Your task to perform on an android device: Search for sushi restaurants on Maps Image 0: 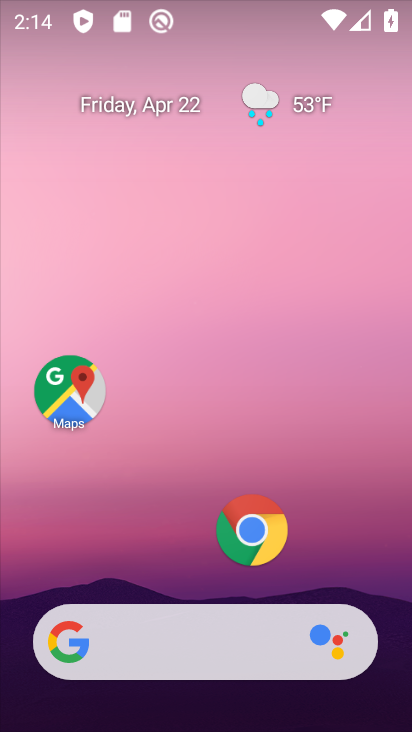
Step 0: click (31, 390)
Your task to perform on an android device: Search for sushi restaurants on Maps Image 1: 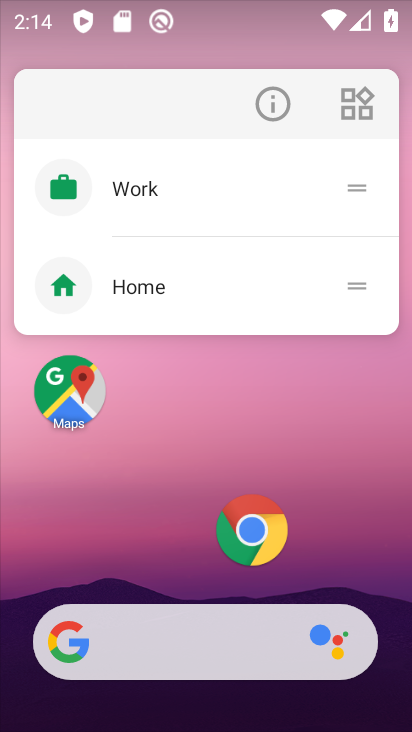
Step 1: click (31, 390)
Your task to perform on an android device: Search for sushi restaurants on Maps Image 2: 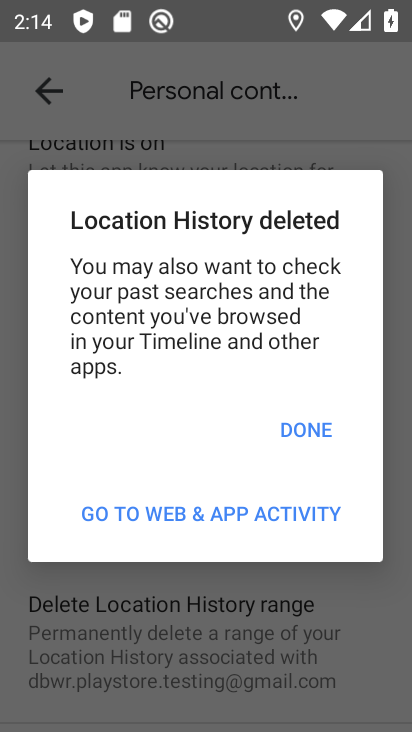
Step 2: click (308, 420)
Your task to perform on an android device: Search for sushi restaurants on Maps Image 3: 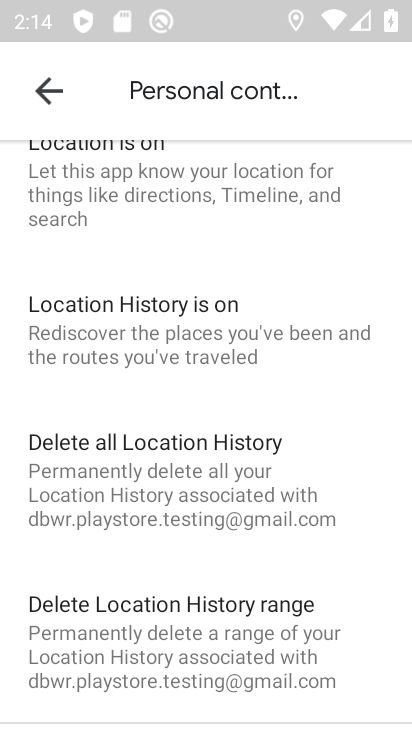
Step 3: press back button
Your task to perform on an android device: Search for sushi restaurants on Maps Image 4: 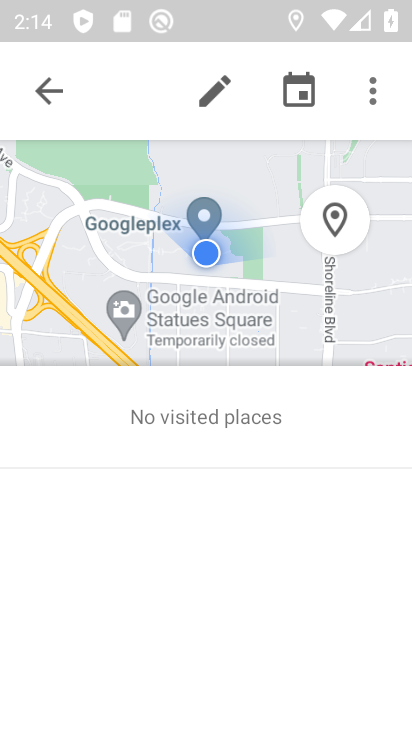
Step 4: click (40, 91)
Your task to perform on an android device: Search for sushi restaurants on Maps Image 5: 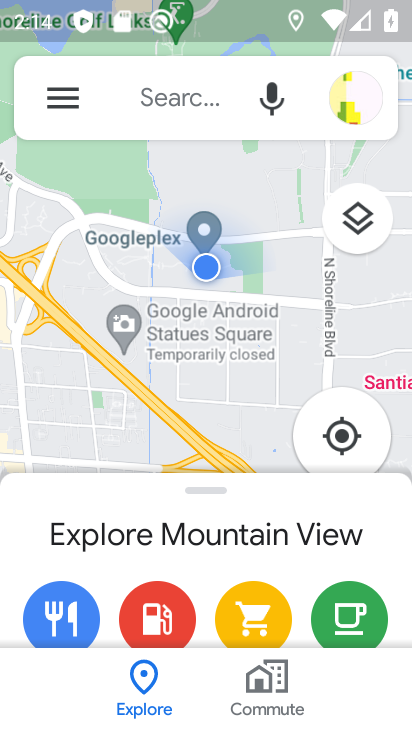
Step 5: click (153, 96)
Your task to perform on an android device: Search for sushi restaurants on Maps Image 6: 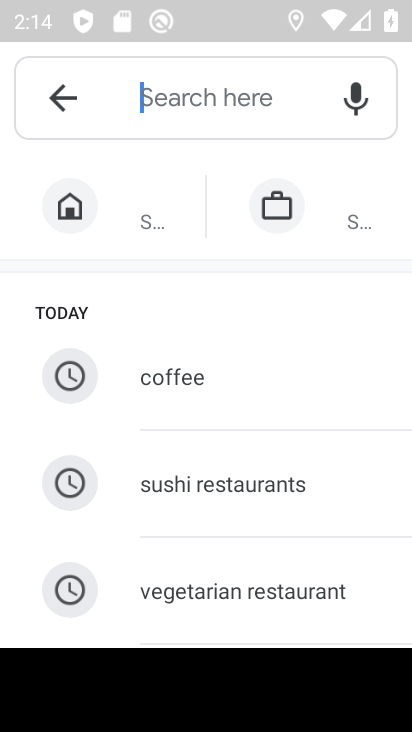
Step 6: click (251, 478)
Your task to perform on an android device: Search for sushi restaurants on Maps Image 7: 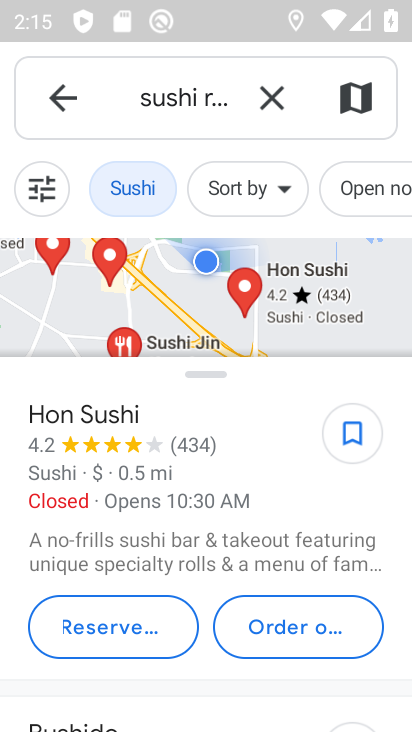
Step 7: task complete